Your task to perform on an android device: Open Youtube and go to the subscriptions tab Image 0: 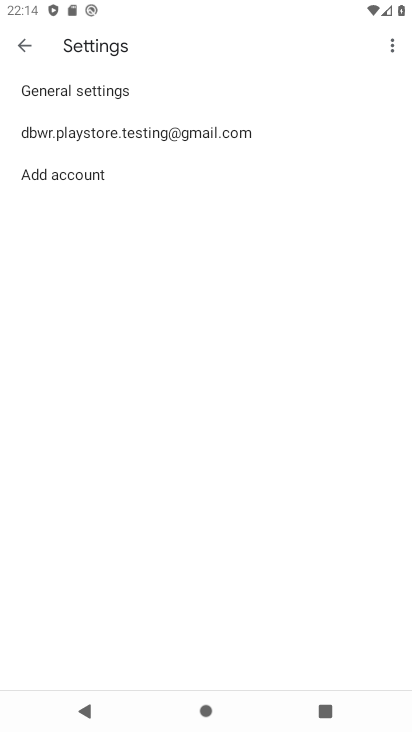
Step 0: press home button
Your task to perform on an android device: Open Youtube and go to the subscriptions tab Image 1: 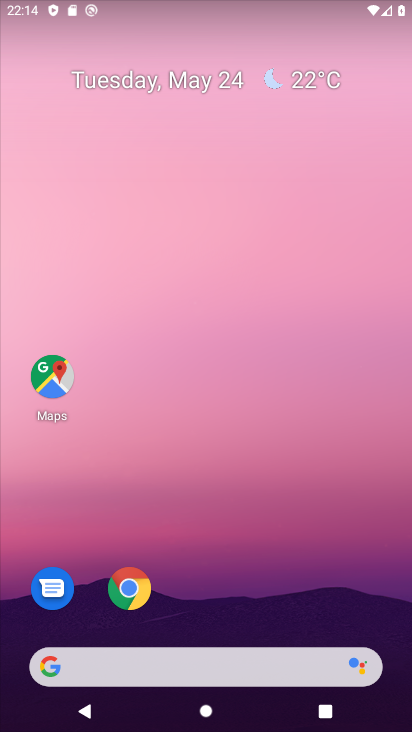
Step 1: drag from (177, 626) to (335, 81)
Your task to perform on an android device: Open Youtube and go to the subscriptions tab Image 2: 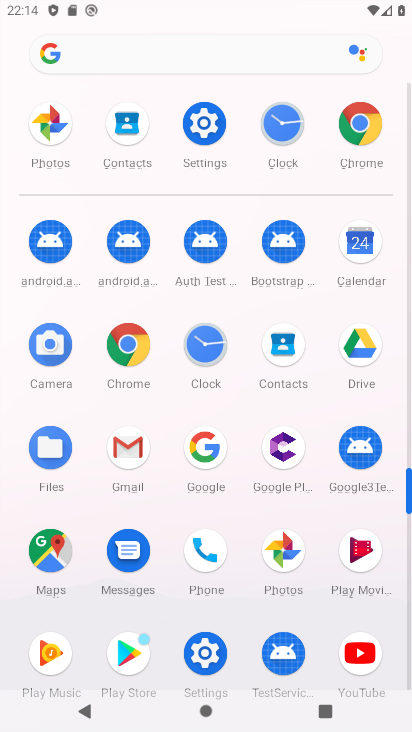
Step 2: click (357, 632)
Your task to perform on an android device: Open Youtube and go to the subscriptions tab Image 3: 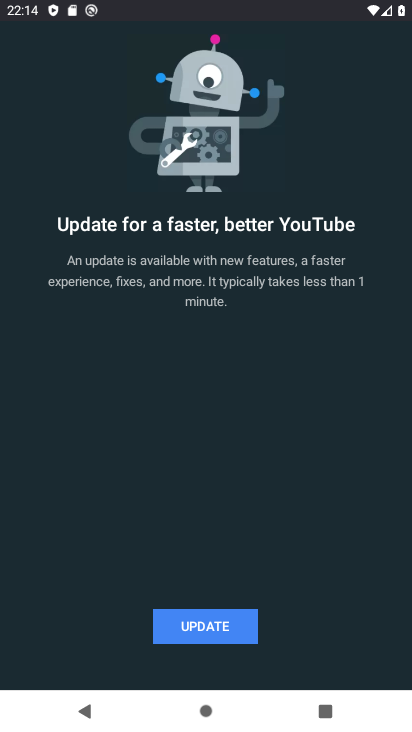
Step 3: click (209, 619)
Your task to perform on an android device: Open Youtube and go to the subscriptions tab Image 4: 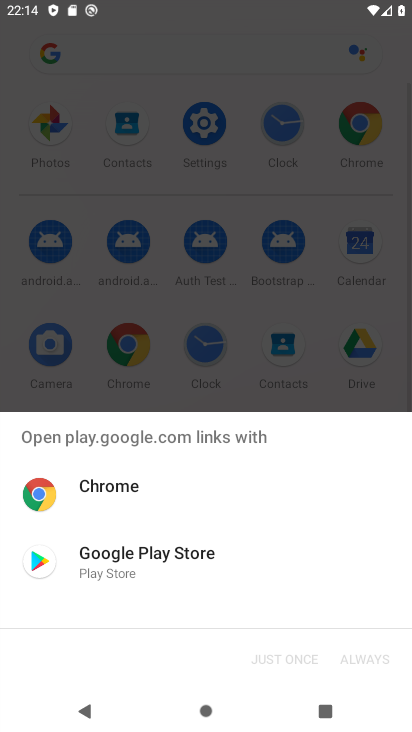
Step 4: click (124, 565)
Your task to perform on an android device: Open Youtube and go to the subscriptions tab Image 5: 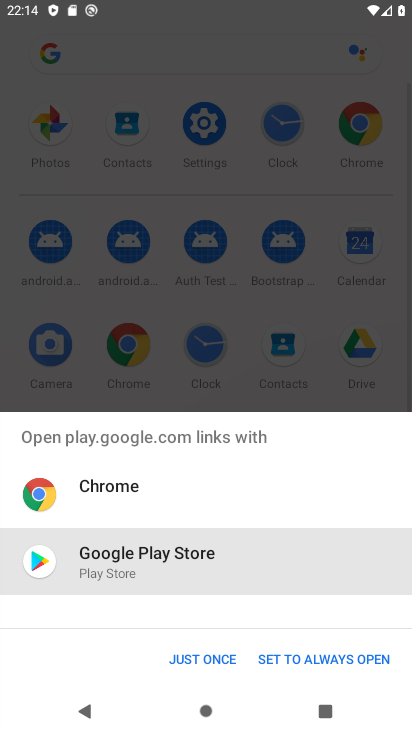
Step 5: click (207, 672)
Your task to perform on an android device: Open Youtube and go to the subscriptions tab Image 6: 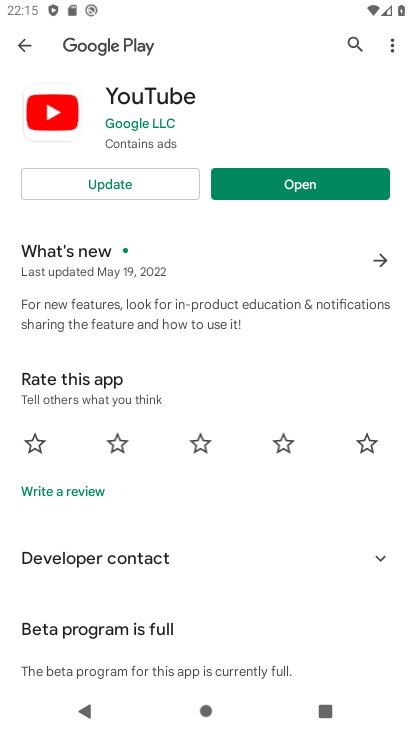
Step 6: click (110, 194)
Your task to perform on an android device: Open Youtube and go to the subscriptions tab Image 7: 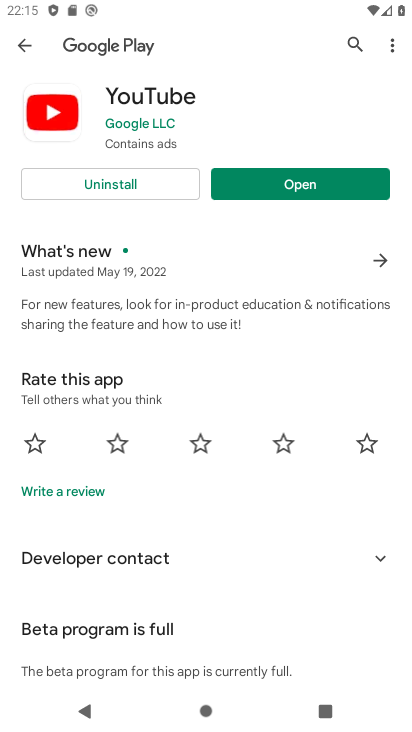
Step 7: click (289, 184)
Your task to perform on an android device: Open Youtube and go to the subscriptions tab Image 8: 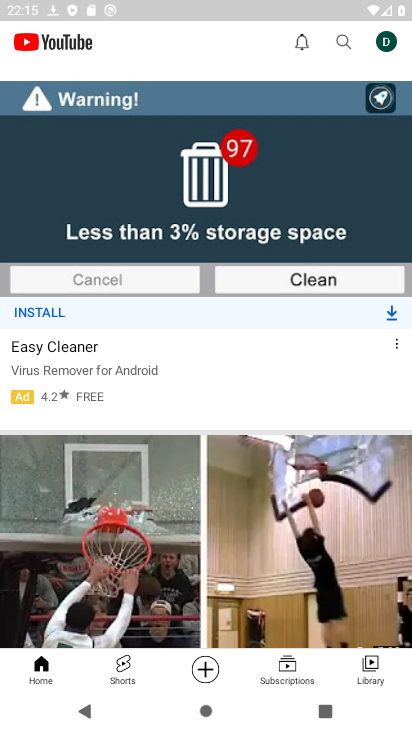
Step 8: click (294, 673)
Your task to perform on an android device: Open Youtube and go to the subscriptions tab Image 9: 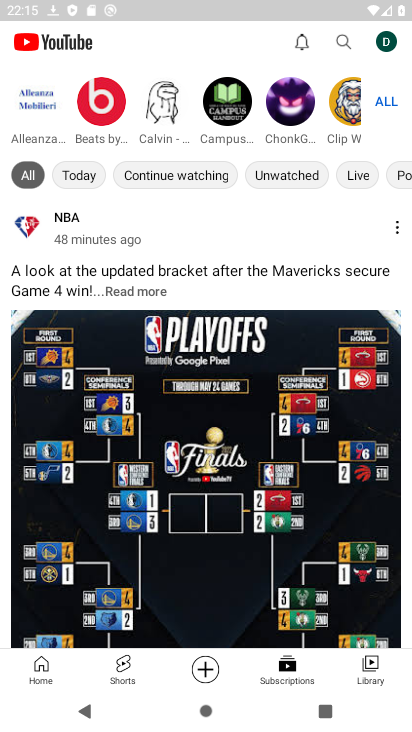
Step 9: task complete